Your task to perform on an android device: find photos in the google photos app Image 0: 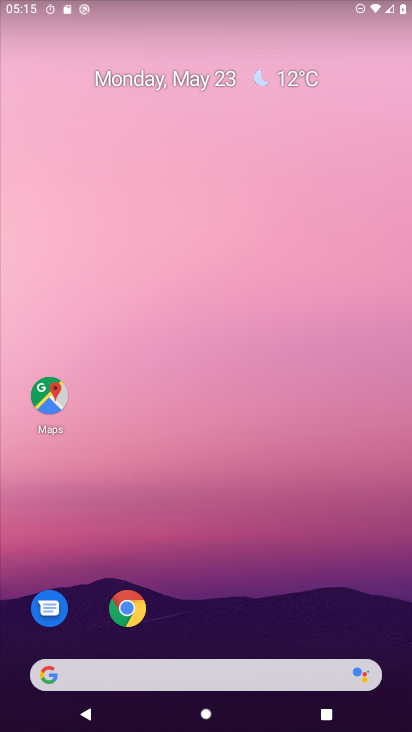
Step 0: press home button
Your task to perform on an android device: find photos in the google photos app Image 1: 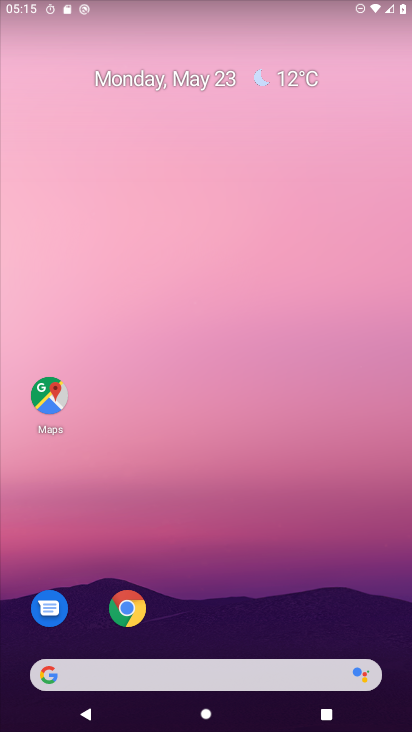
Step 1: drag from (286, 577) to (191, 24)
Your task to perform on an android device: find photos in the google photos app Image 2: 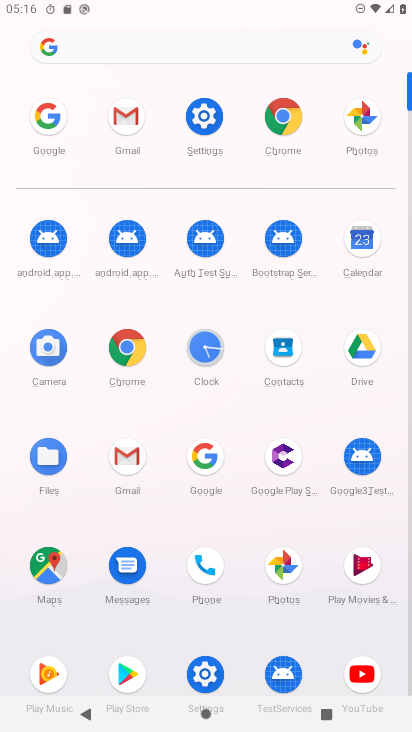
Step 2: click (282, 565)
Your task to perform on an android device: find photos in the google photos app Image 3: 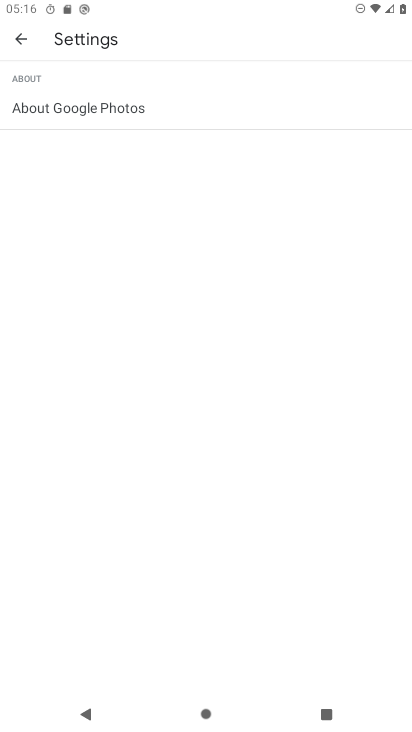
Step 3: click (27, 35)
Your task to perform on an android device: find photos in the google photos app Image 4: 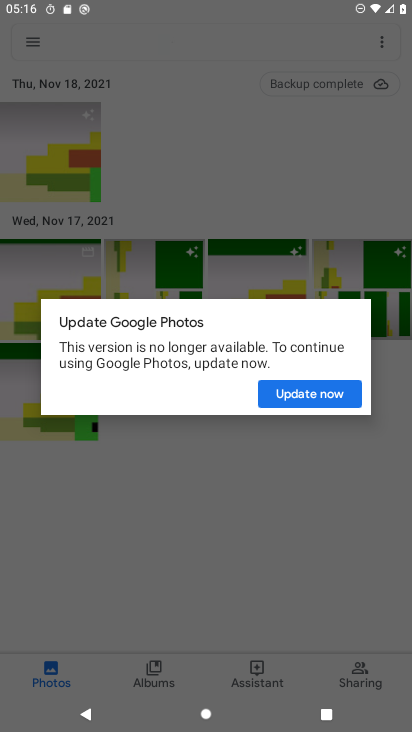
Step 4: click (335, 389)
Your task to perform on an android device: find photos in the google photos app Image 5: 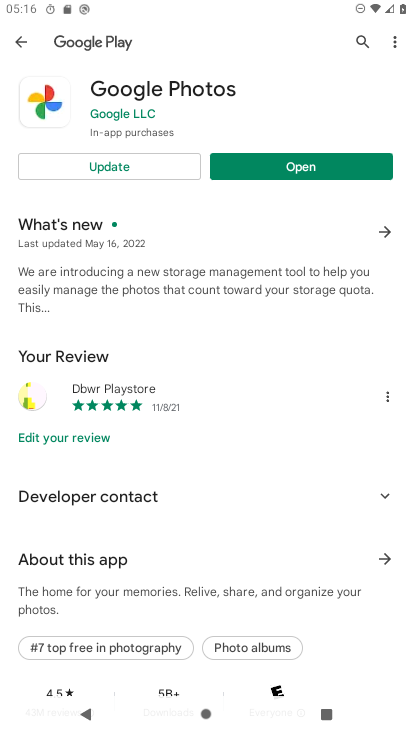
Step 5: click (150, 159)
Your task to perform on an android device: find photos in the google photos app Image 6: 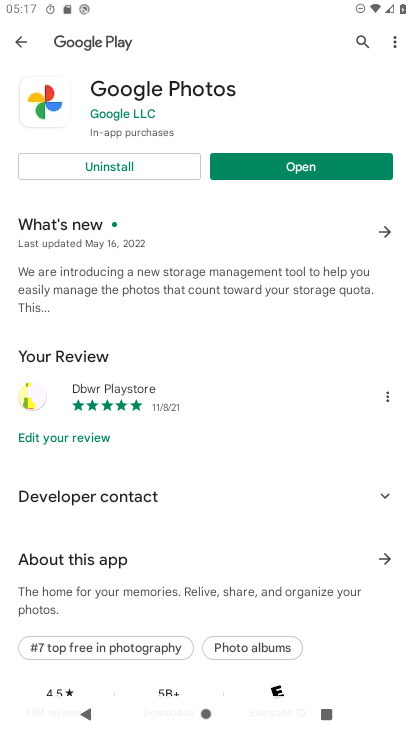
Step 6: click (283, 164)
Your task to perform on an android device: find photos in the google photos app Image 7: 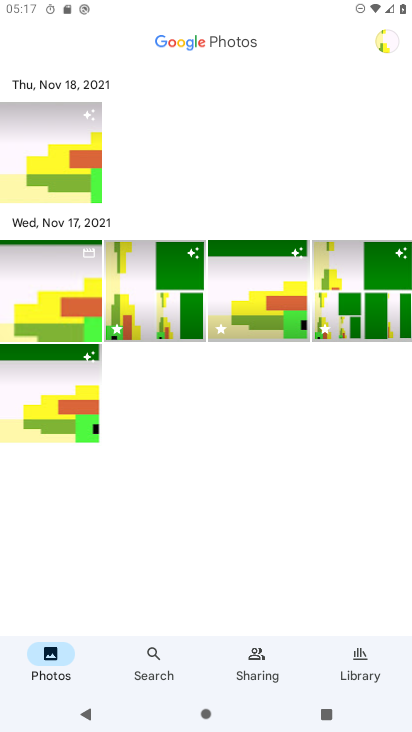
Step 7: task complete